Your task to perform on an android device: toggle show notifications on the lock screen Image 0: 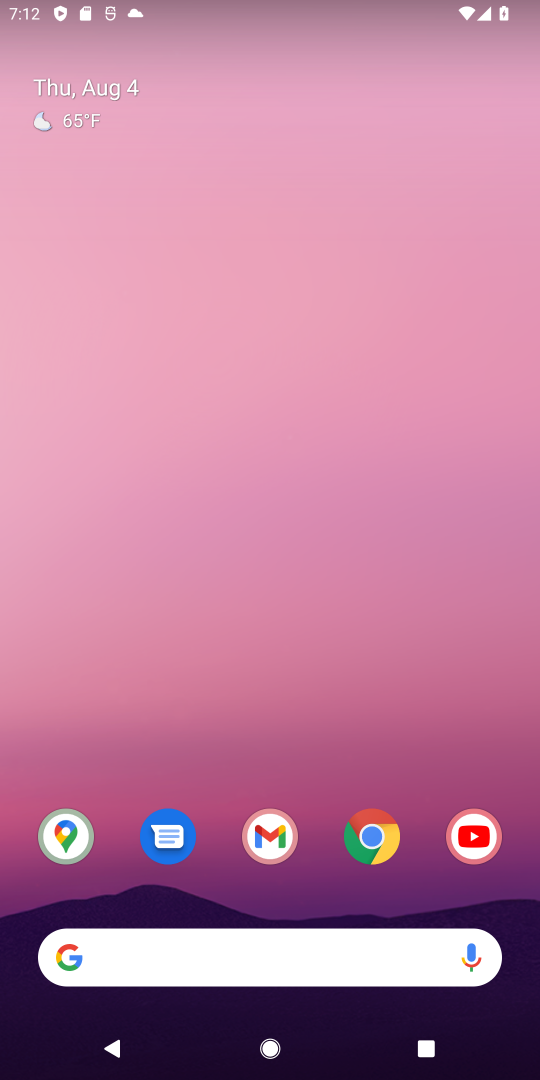
Step 0: drag from (198, 875) to (245, 124)
Your task to perform on an android device: toggle show notifications on the lock screen Image 1: 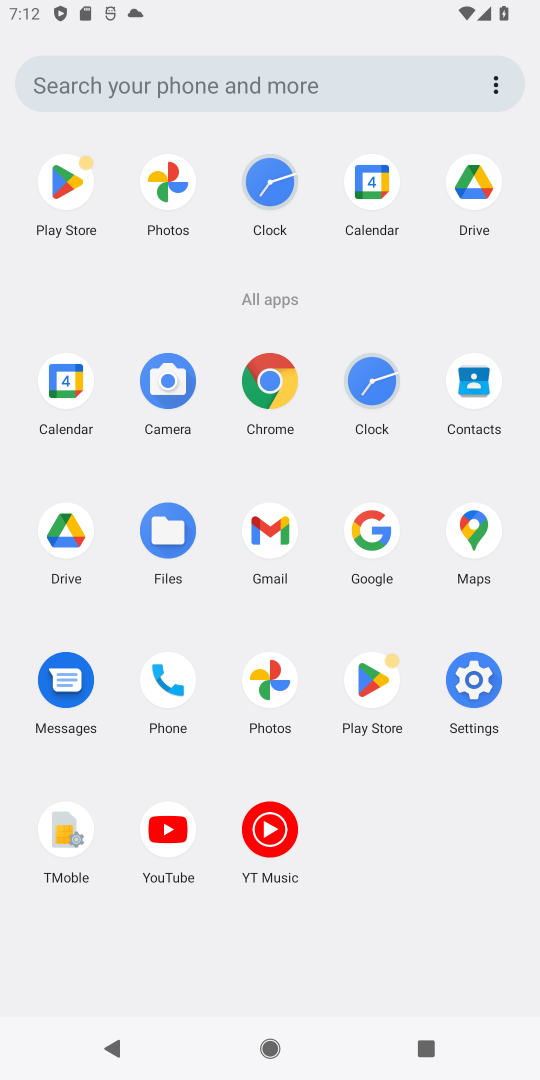
Step 1: click (467, 675)
Your task to perform on an android device: toggle show notifications on the lock screen Image 2: 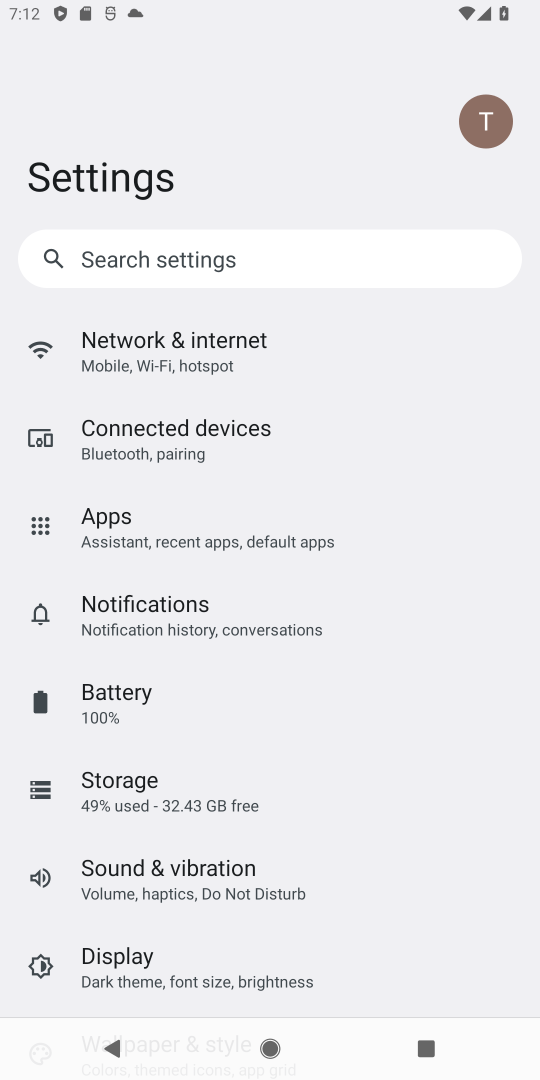
Step 2: click (231, 636)
Your task to perform on an android device: toggle show notifications on the lock screen Image 3: 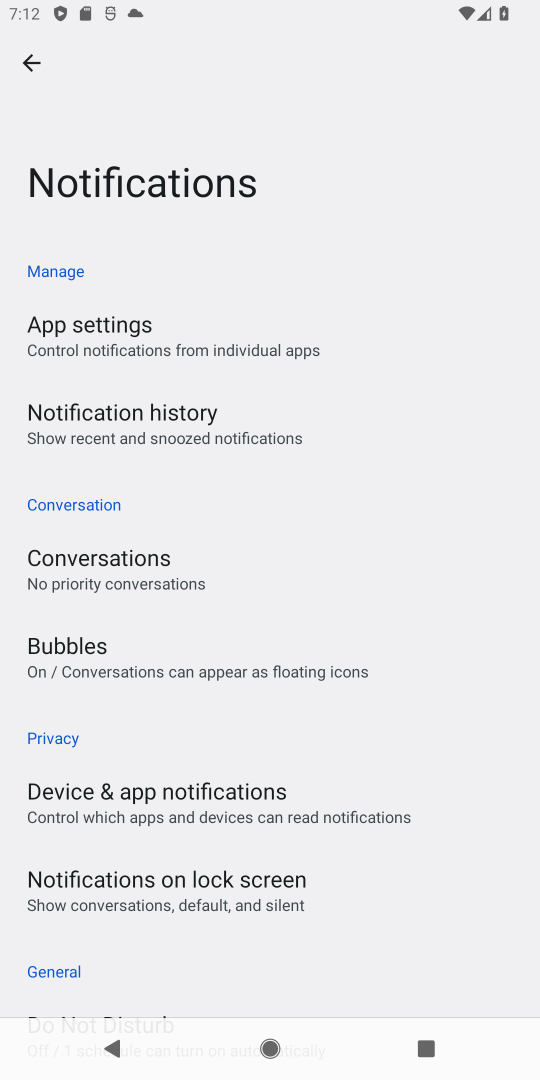
Step 3: click (202, 878)
Your task to perform on an android device: toggle show notifications on the lock screen Image 4: 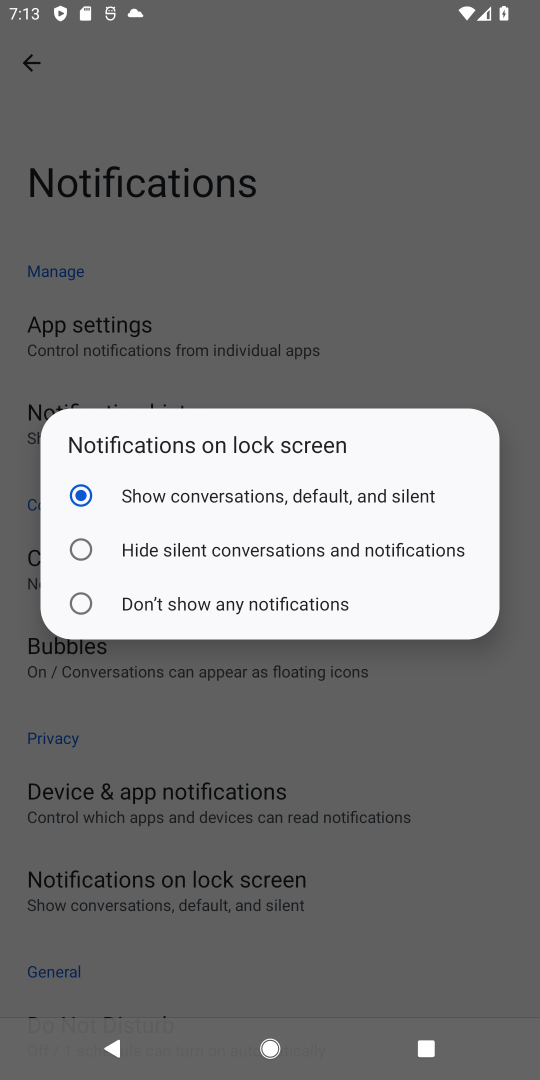
Step 4: task complete